Your task to perform on an android device: turn off notifications settings in the gmail app Image 0: 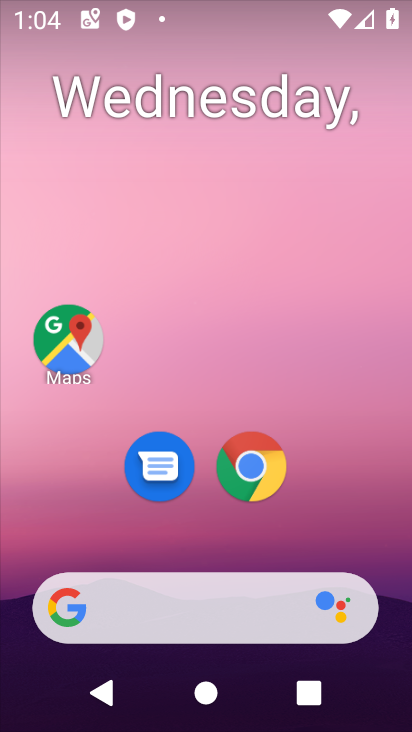
Step 0: drag from (215, 22) to (243, 464)
Your task to perform on an android device: turn off notifications settings in the gmail app Image 1: 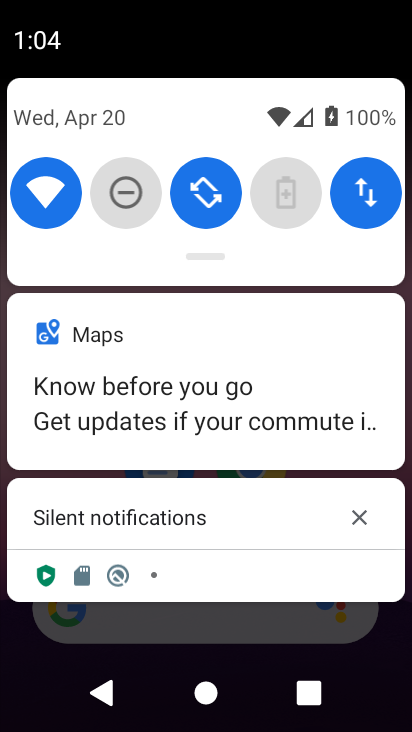
Step 1: drag from (257, 22) to (244, 695)
Your task to perform on an android device: turn off notifications settings in the gmail app Image 2: 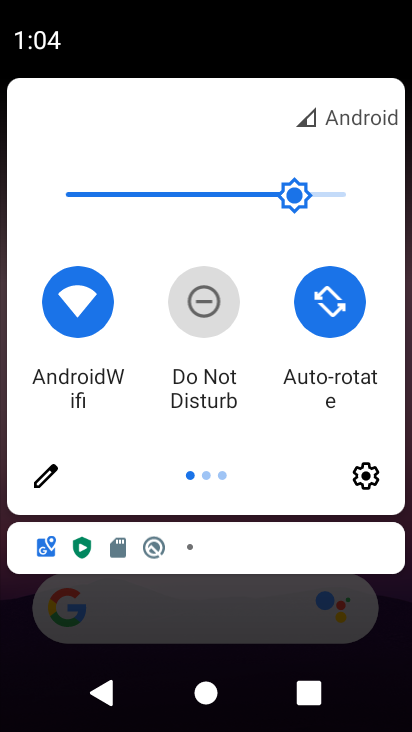
Step 2: click (375, 484)
Your task to perform on an android device: turn off notifications settings in the gmail app Image 3: 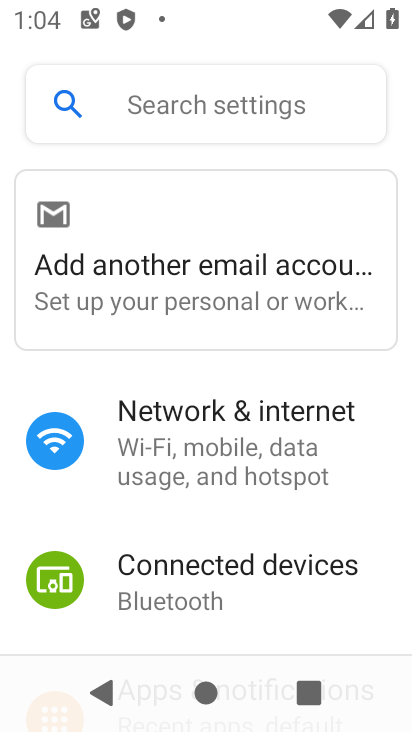
Step 3: drag from (192, 561) to (216, 111)
Your task to perform on an android device: turn off notifications settings in the gmail app Image 4: 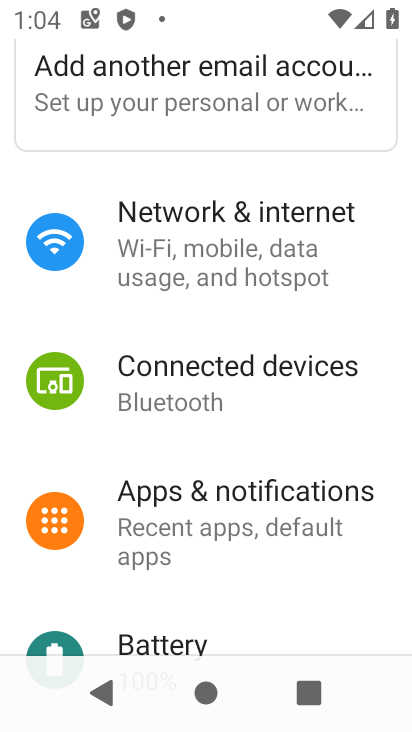
Step 4: drag from (180, 558) to (200, 104)
Your task to perform on an android device: turn off notifications settings in the gmail app Image 5: 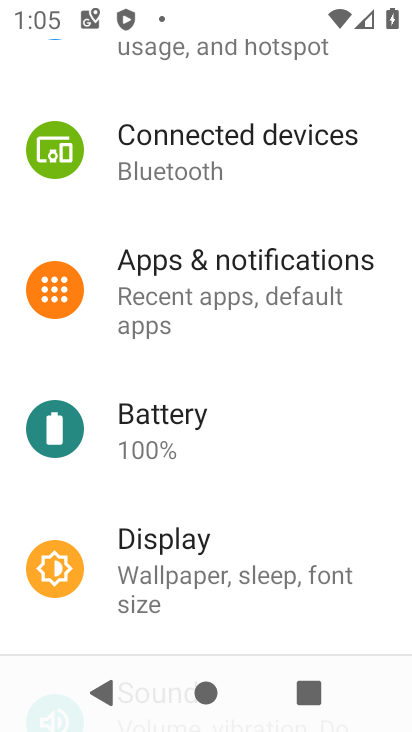
Step 5: click (220, 271)
Your task to perform on an android device: turn off notifications settings in the gmail app Image 6: 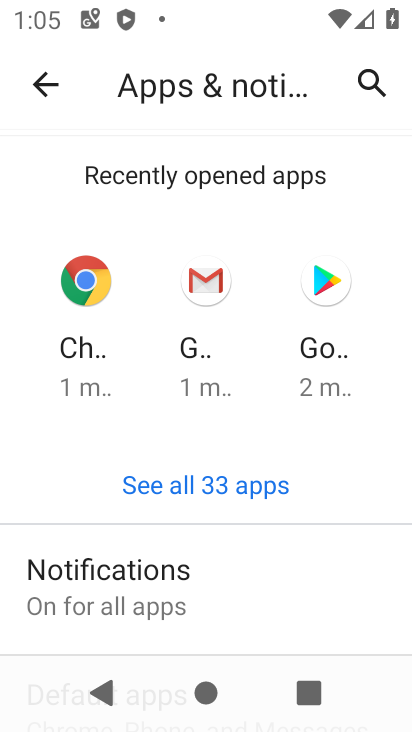
Step 6: drag from (213, 541) to (205, 99)
Your task to perform on an android device: turn off notifications settings in the gmail app Image 7: 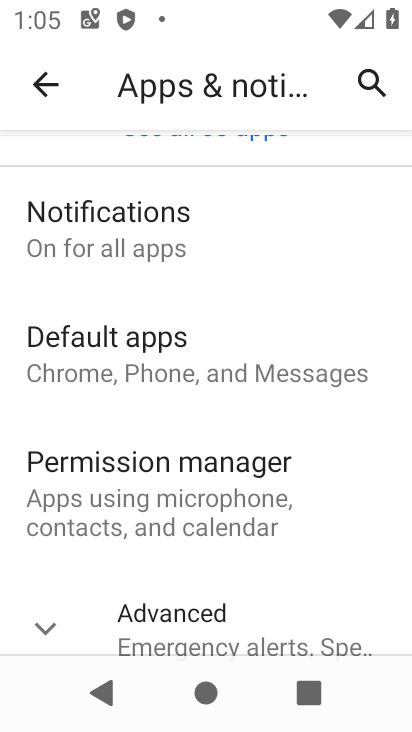
Step 7: drag from (217, 269) to (243, 579)
Your task to perform on an android device: turn off notifications settings in the gmail app Image 8: 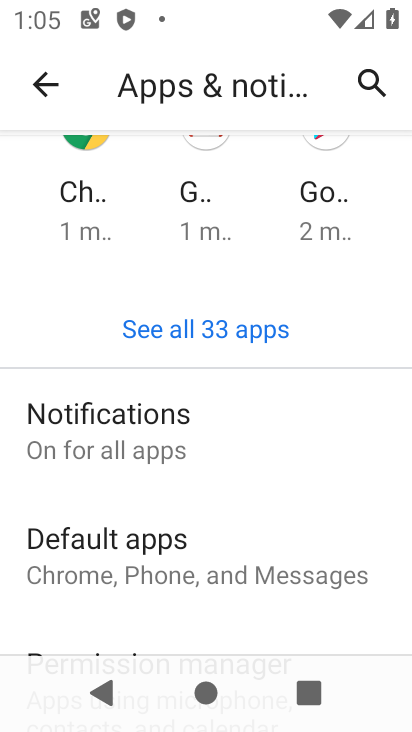
Step 8: click (195, 157)
Your task to perform on an android device: turn off notifications settings in the gmail app Image 9: 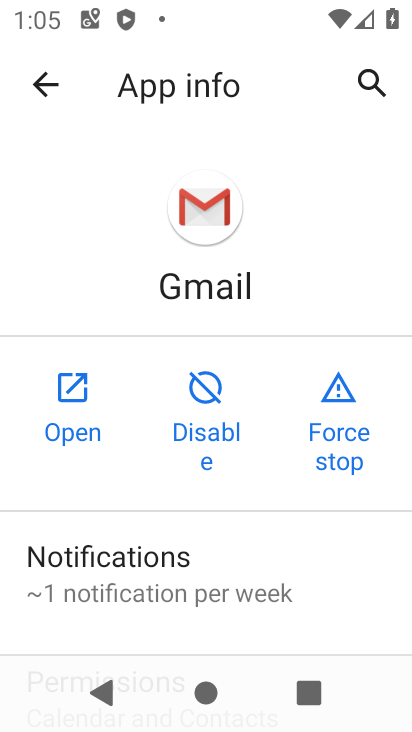
Step 9: click (142, 585)
Your task to perform on an android device: turn off notifications settings in the gmail app Image 10: 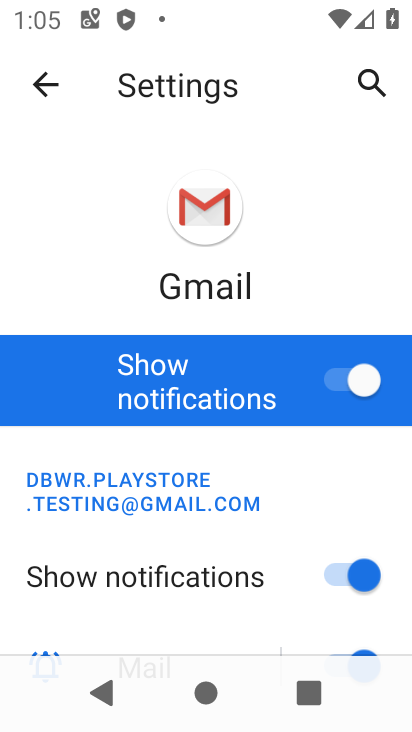
Step 10: click (343, 388)
Your task to perform on an android device: turn off notifications settings in the gmail app Image 11: 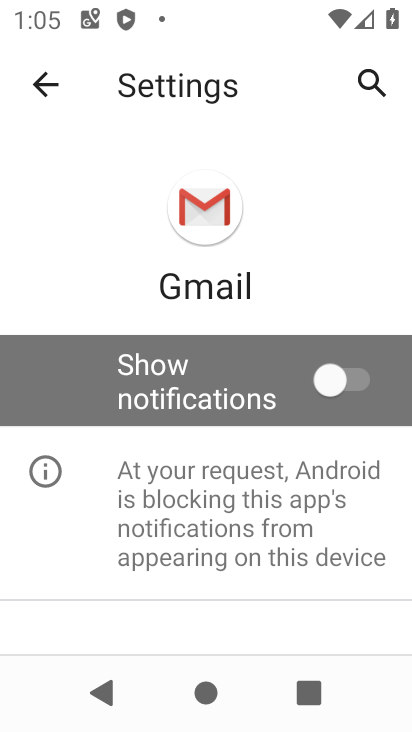
Step 11: task complete